Your task to perform on an android device: Open Wikipedia Image 0: 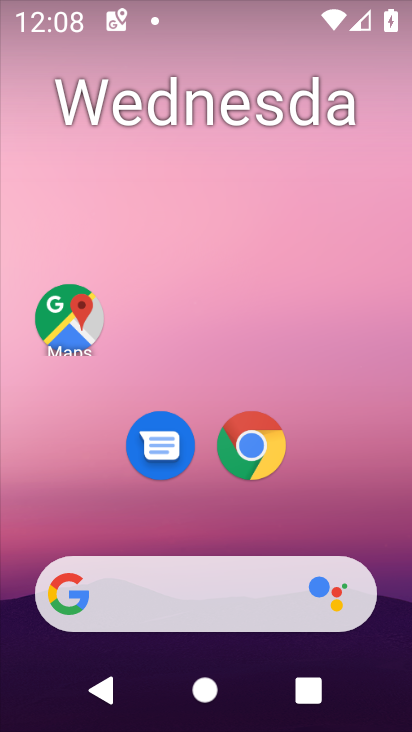
Step 0: click (249, 450)
Your task to perform on an android device: Open Wikipedia Image 1: 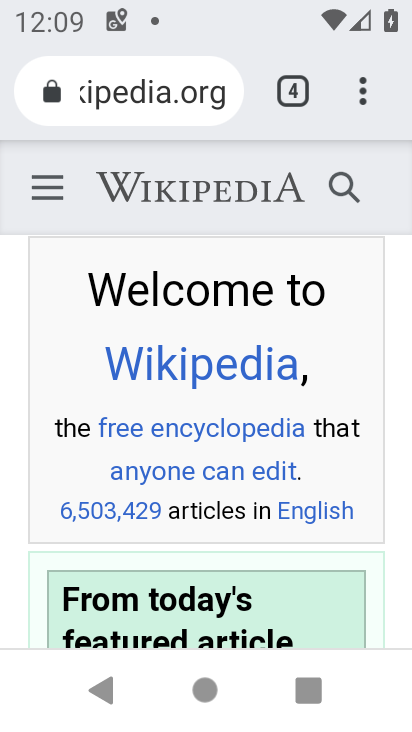
Step 1: task complete